Your task to perform on an android device: Open the Play Movies app and select the watchlist tab. Image 0: 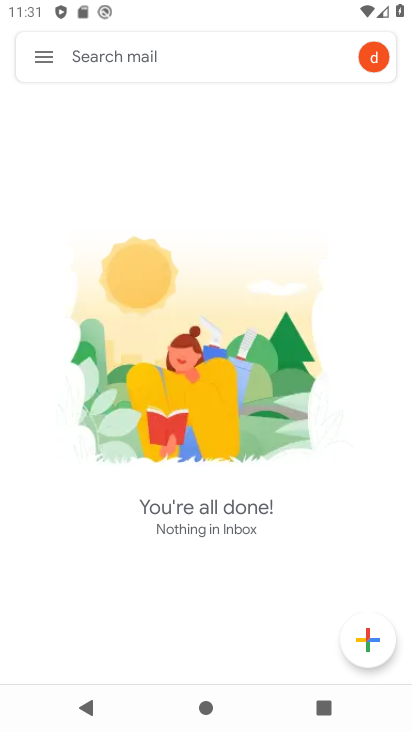
Step 0: press back button
Your task to perform on an android device: Open the Play Movies app and select the watchlist tab. Image 1: 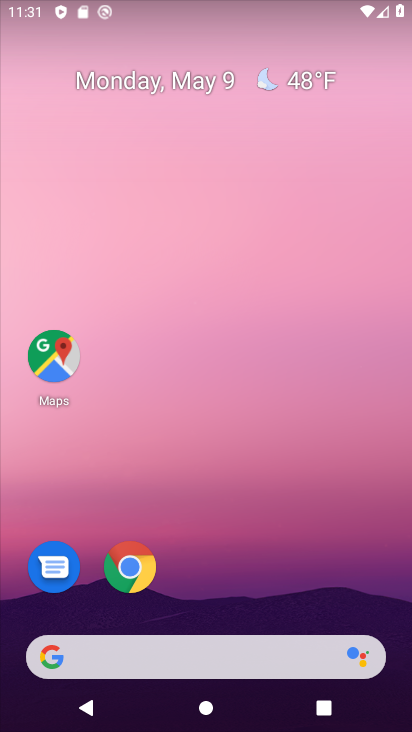
Step 1: drag from (224, 627) to (305, 282)
Your task to perform on an android device: Open the Play Movies app and select the watchlist tab. Image 2: 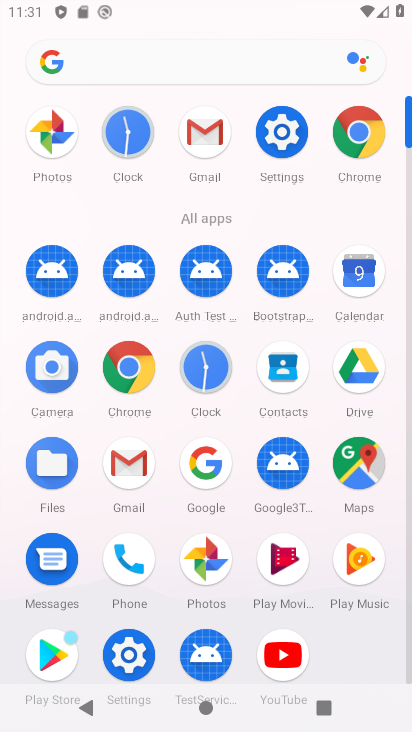
Step 2: drag from (205, 620) to (319, 149)
Your task to perform on an android device: Open the Play Movies app and select the watchlist tab. Image 3: 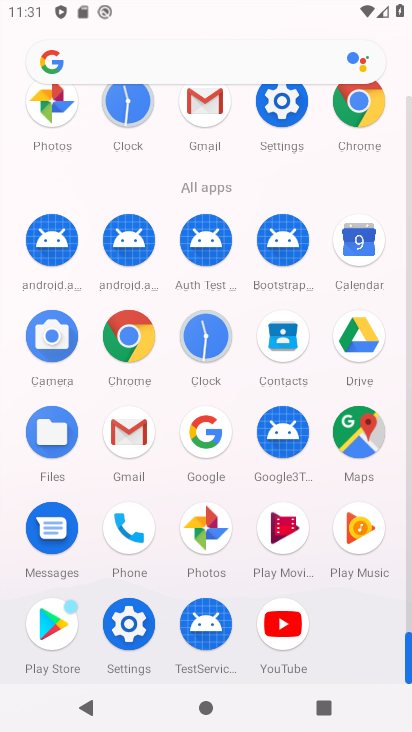
Step 3: click (284, 533)
Your task to perform on an android device: Open the Play Movies app and select the watchlist tab. Image 4: 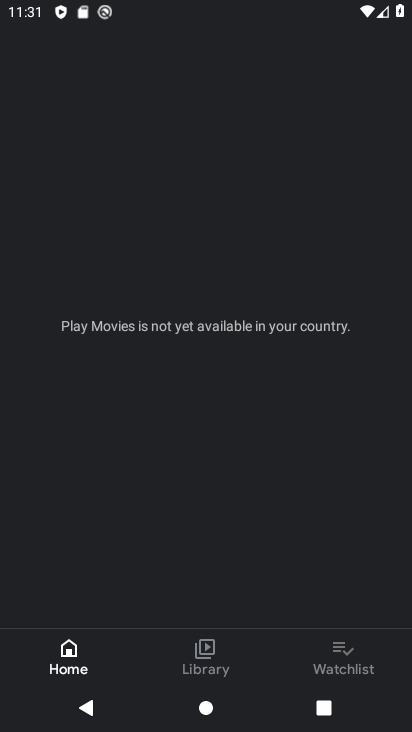
Step 4: click (352, 653)
Your task to perform on an android device: Open the Play Movies app and select the watchlist tab. Image 5: 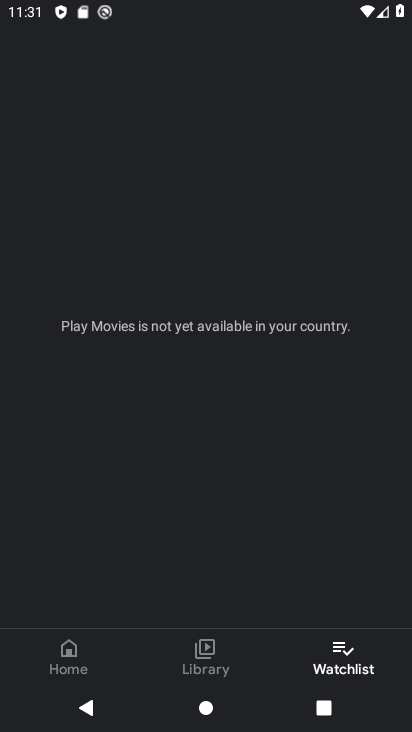
Step 5: task complete